Your task to perform on an android device: Show me the alarms in the clock app Image 0: 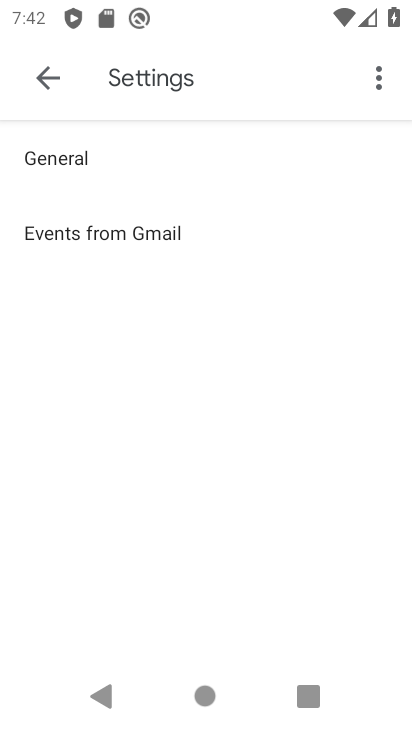
Step 0: press home button
Your task to perform on an android device: Show me the alarms in the clock app Image 1: 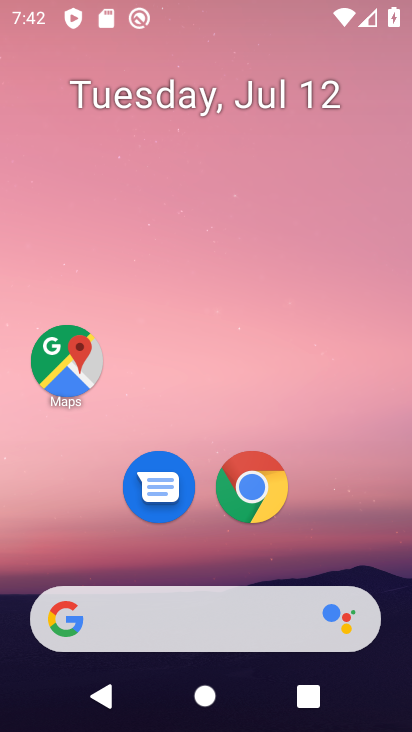
Step 1: drag from (211, 678) to (215, 48)
Your task to perform on an android device: Show me the alarms in the clock app Image 2: 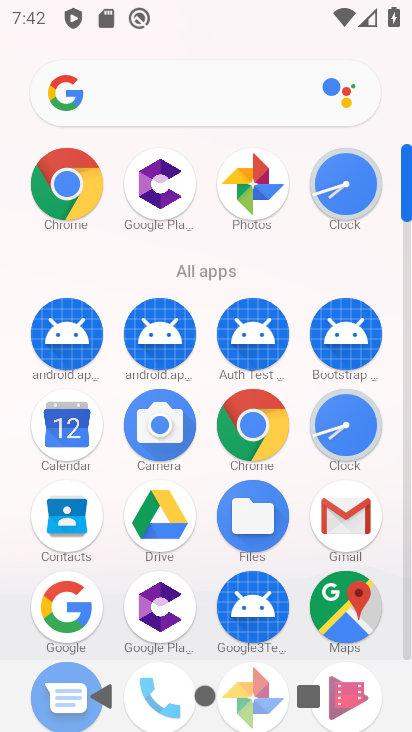
Step 2: click (361, 448)
Your task to perform on an android device: Show me the alarms in the clock app Image 3: 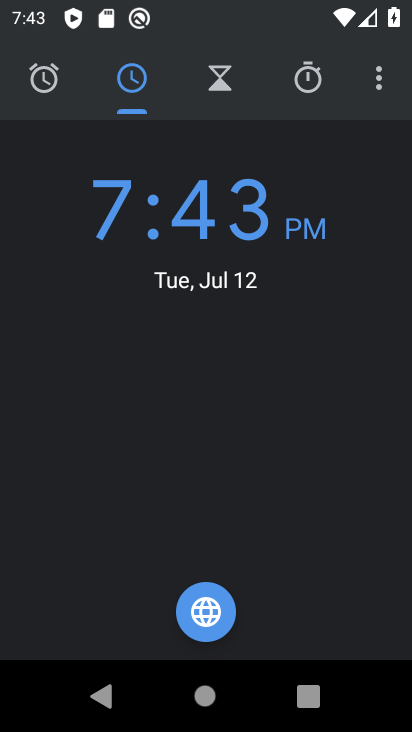
Step 3: click (45, 91)
Your task to perform on an android device: Show me the alarms in the clock app Image 4: 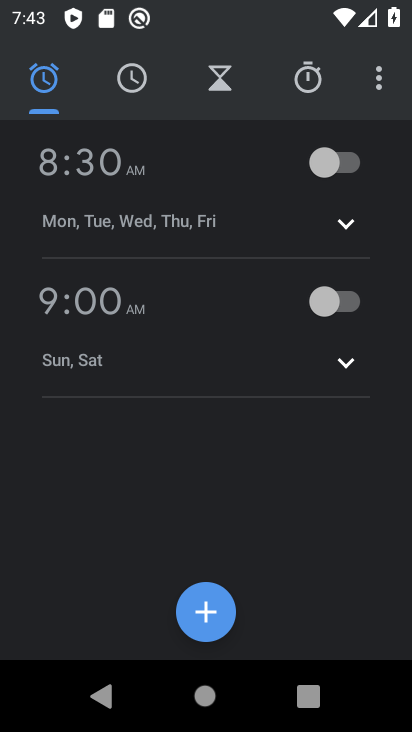
Step 4: task complete